Your task to perform on an android device: Do I have any events this weekend? Image 0: 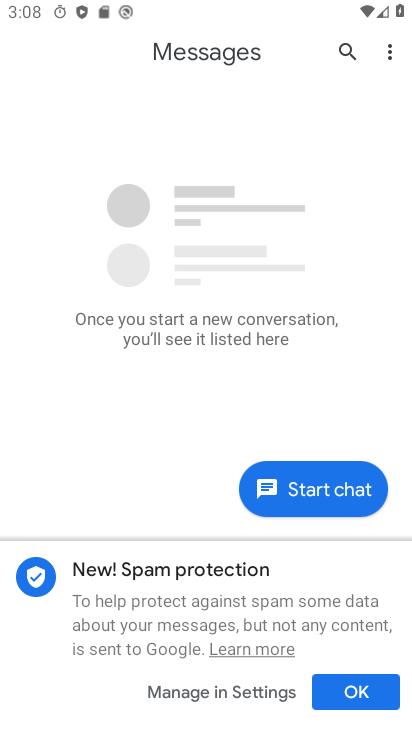
Step 0: press home button
Your task to perform on an android device: Do I have any events this weekend? Image 1: 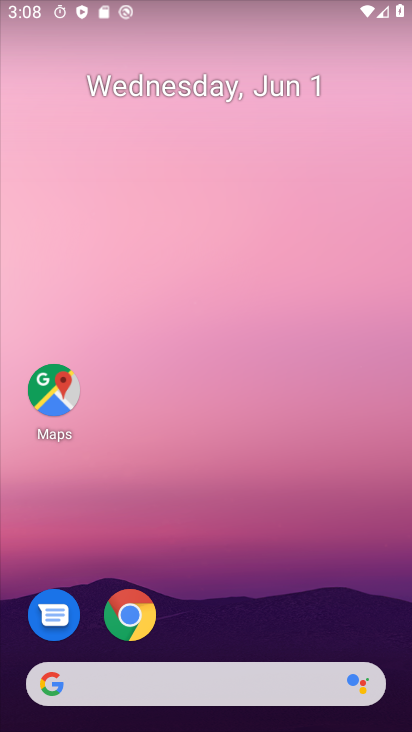
Step 1: drag from (255, 644) to (310, 65)
Your task to perform on an android device: Do I have any events this weekend? Image 2: 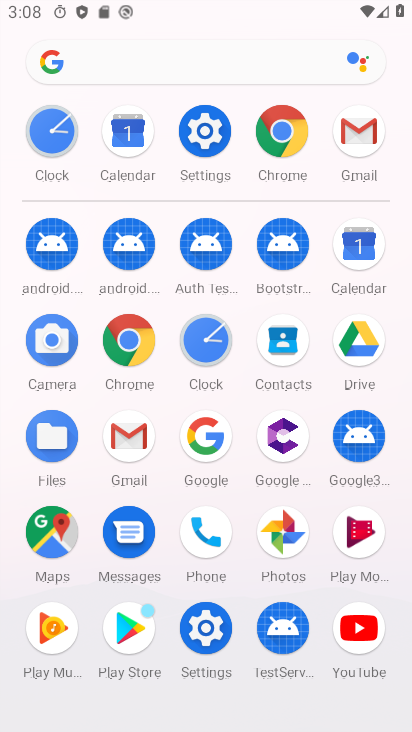
Step 2: click (360, 247)
Your task to perform on an android device: Do I have any events this weekend? Image 3: 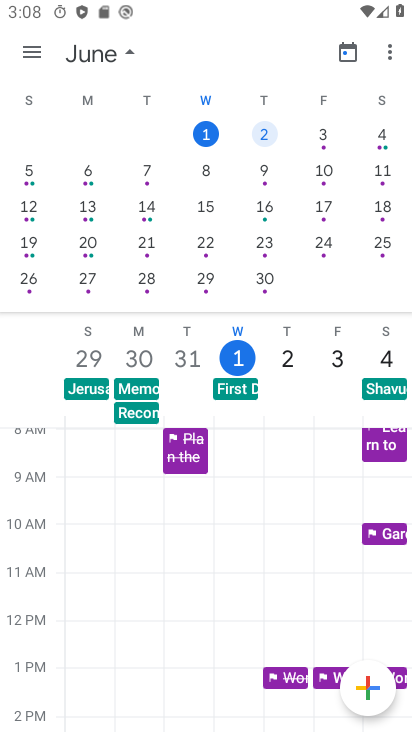
Step 3: click (386, 138)
Your task to perform on an android device: Do I have any events this weekend? Image 4: 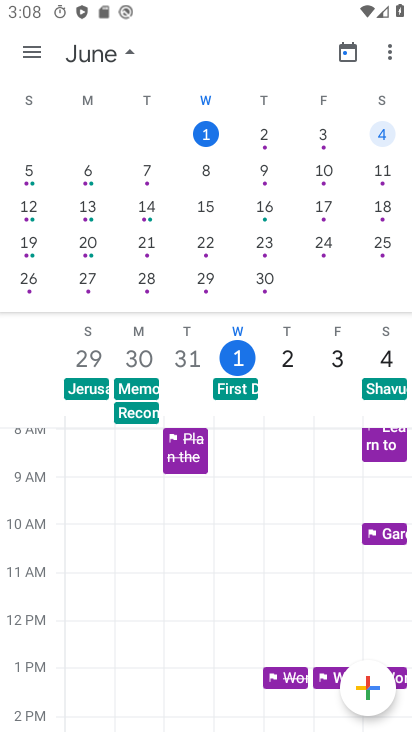
Step 4: click (386, 138)
Your task to perform on an android device: Do I have any events this weekend? Image 5: 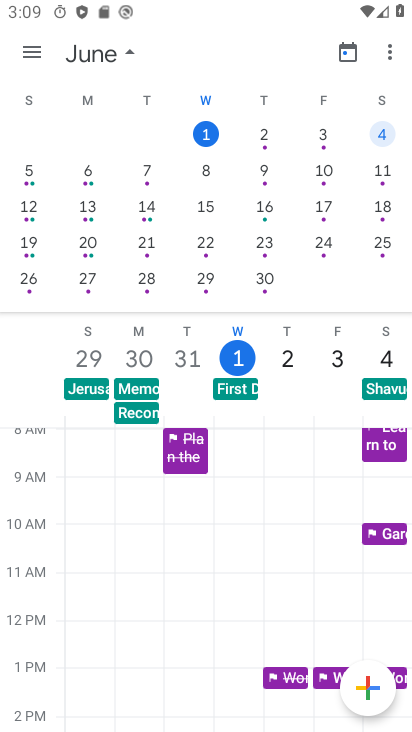
Step 5: click (377, 134)
Your task to perform on an android device: Do I have any events this weekend? Image 6: 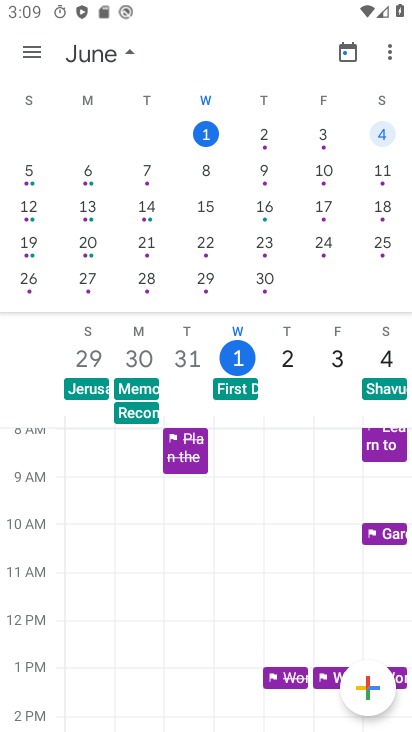
Step 6: click (24, 178)
Your task to perform on an android device: Do I have any events this weekend? Image 7: 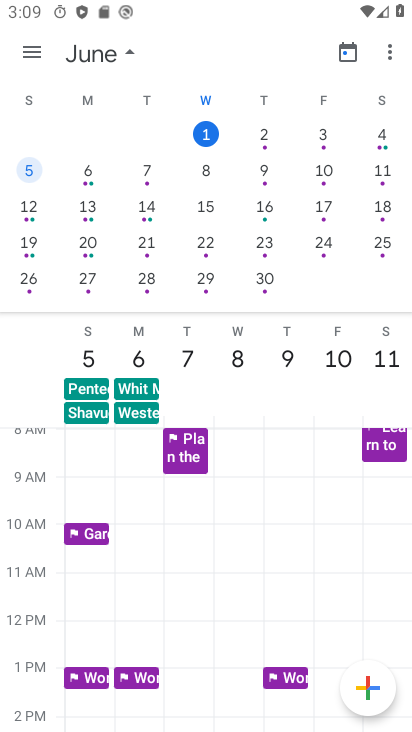
Step 7: click (384, 139)
Your task to perform on an android device: Do I have any events this weekend? Image 8: 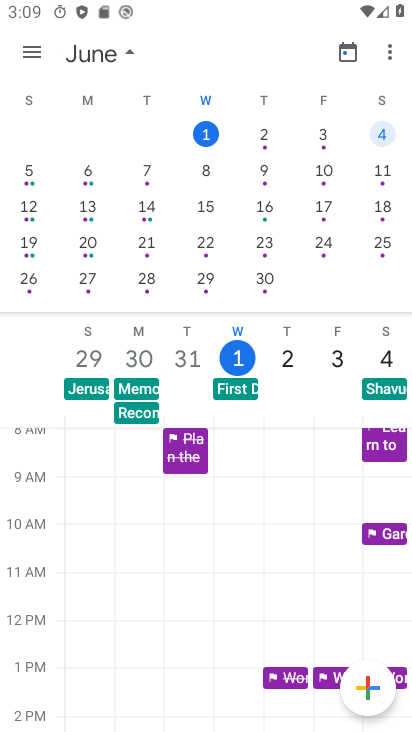
Step 8: click (24, 168)
Your task to perform on an android device: Do I have any events this weekend? Image 9: 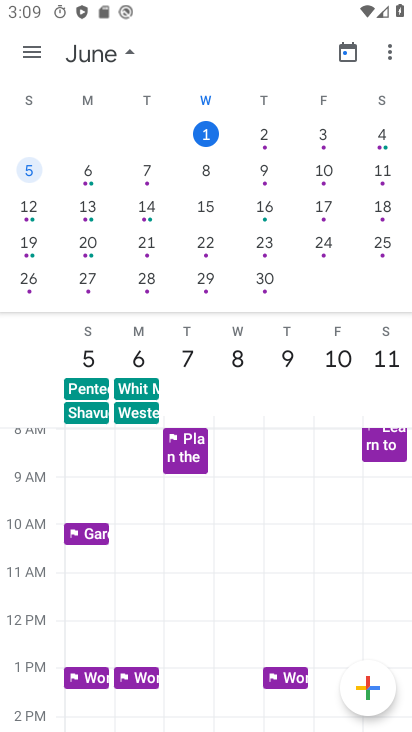
Step 9: click (382, 131)
Your task to perform on an android device: Do I have any events this weekend? Image 10: 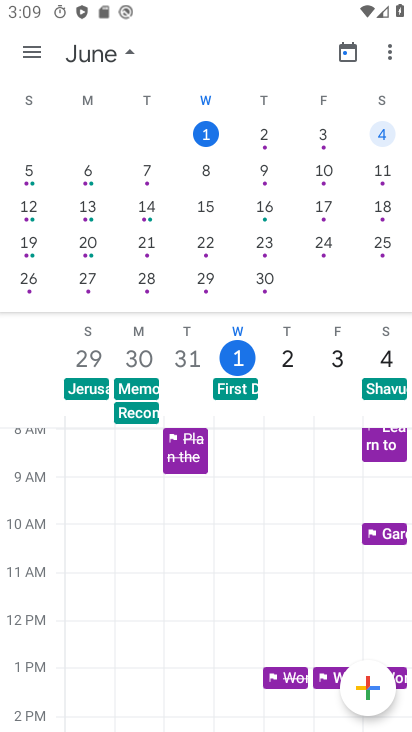
Step 10: task complete